Your task to perform on an android device: open a new tab in the chrome app Image 0: 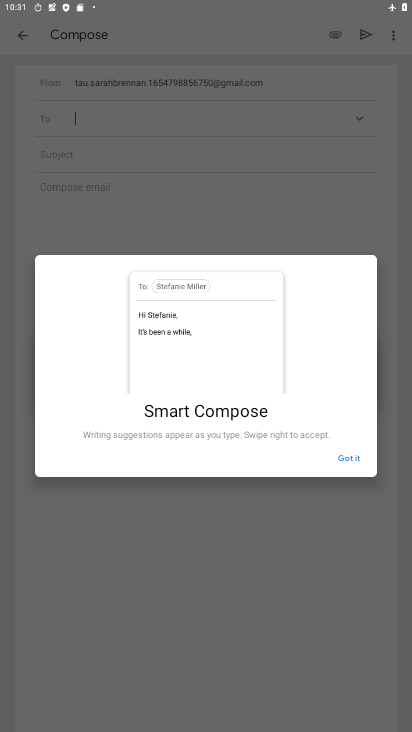
Step 0: press home button
Your task to perform on an android device: open a new tab in the chrome app Image 1: 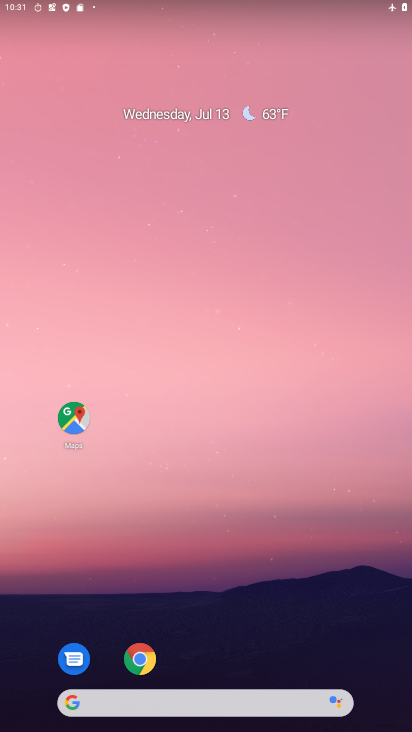
Step 1: drag from (333, 614) to (301, 67)
Your task to perform on an android device: open a new tab in the chrome app Image 2: 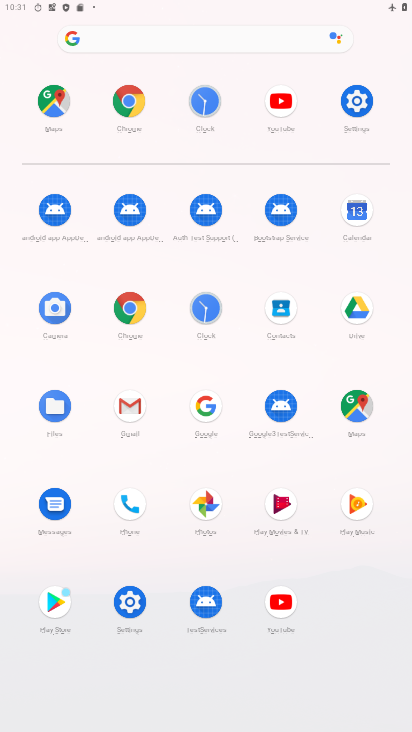
Step 2: click (129, 307)
Your task to perform on an android device: open a new tab in the chrome app Image 3: 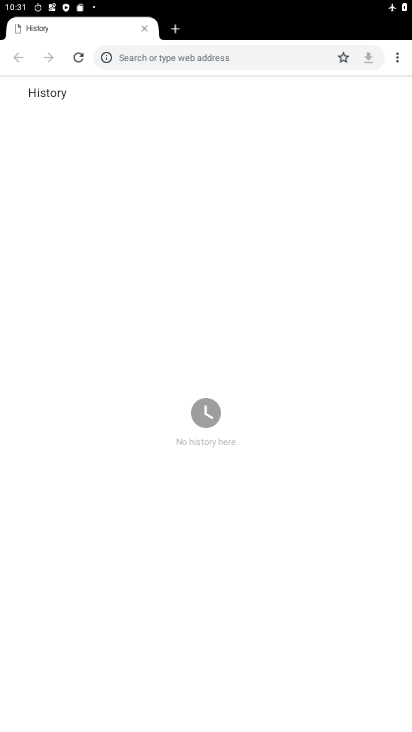
Step 3: click (180, 29)
Your task to perform on an android device: open a new tab in the chrome app Image 4: 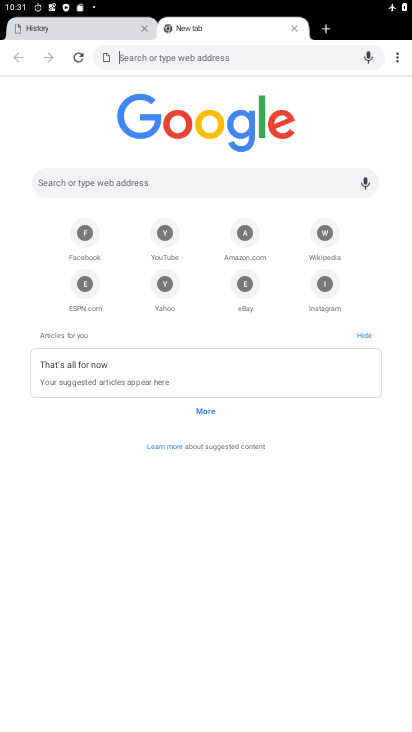
Step 4: task complete